Your task to perform on an android device: allow cookies in the chrome app Image 0: 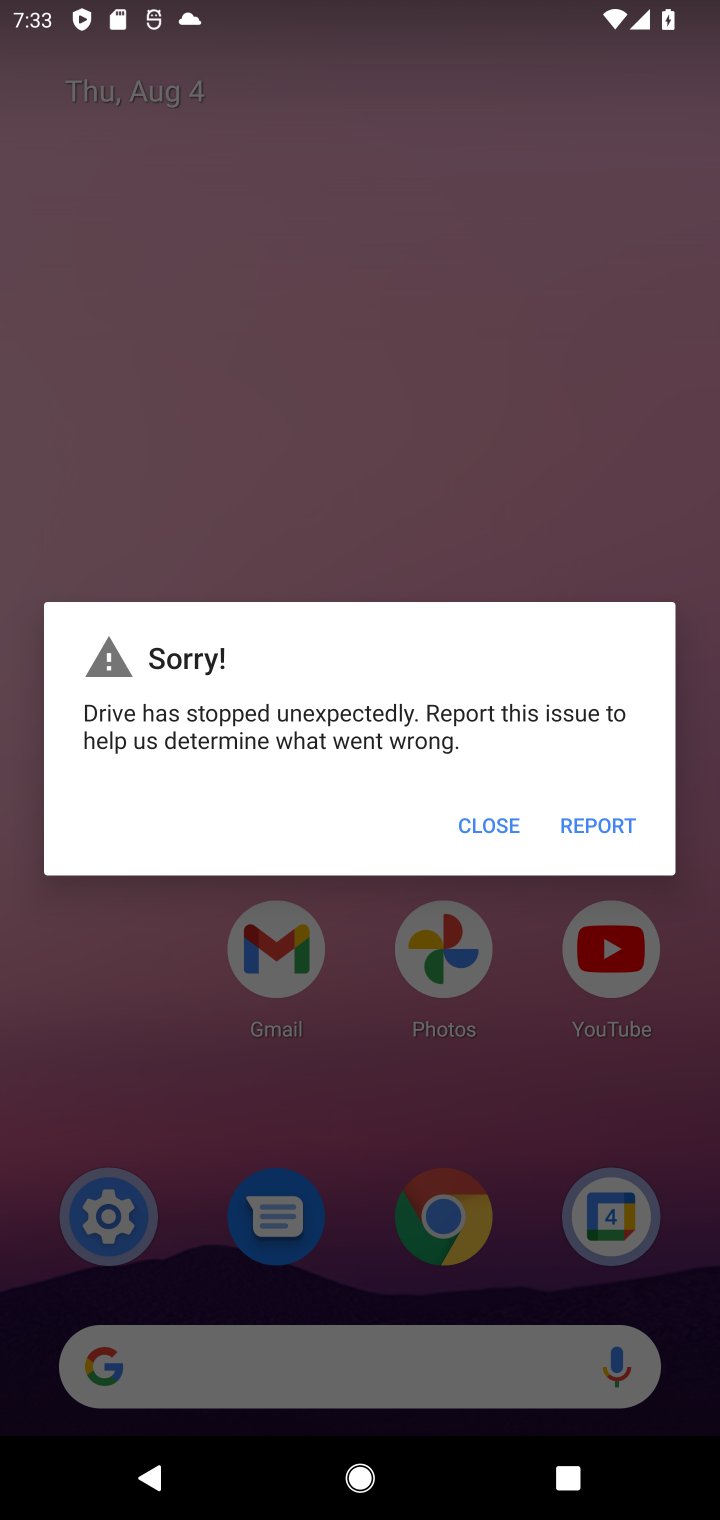
Step 0: click (474, 814)
Your task to perform on an android device: allow cookies in the chrome app Image 1: 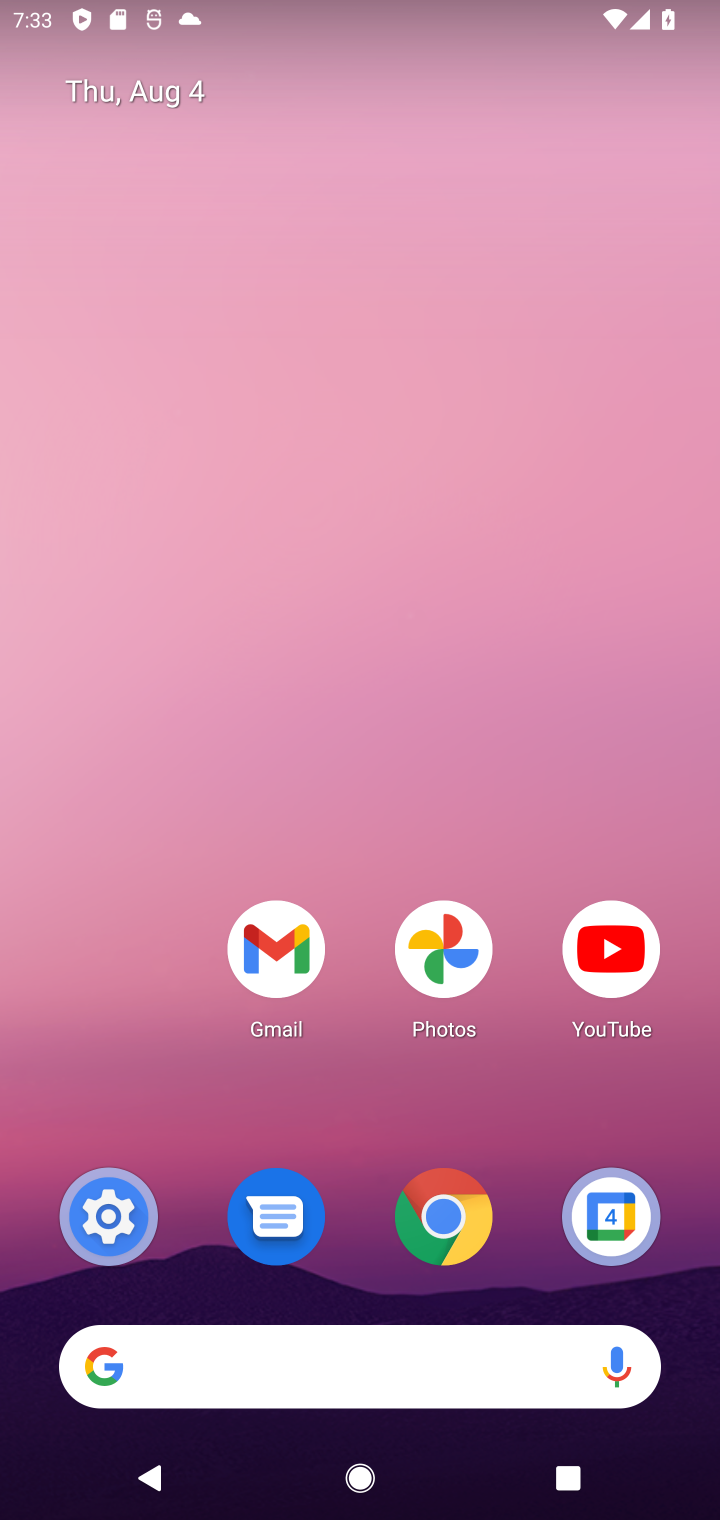
Step 1: click (453, 1217)
Your task to perform on an android device: allow cookies in the chrome app Image 2: 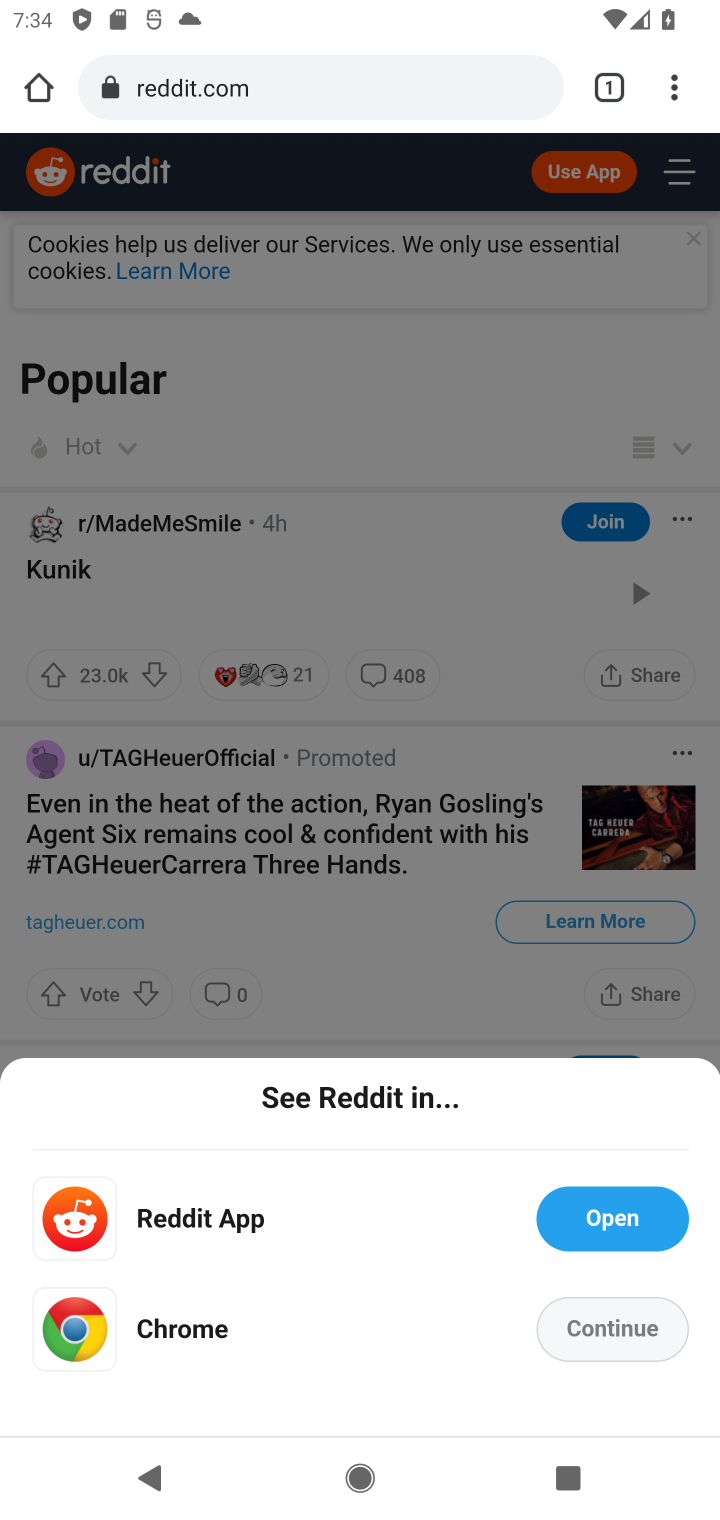
Step 2: click (676, 96)
Your task to perform on an android device: allow cookies in the chrome app Image 3: 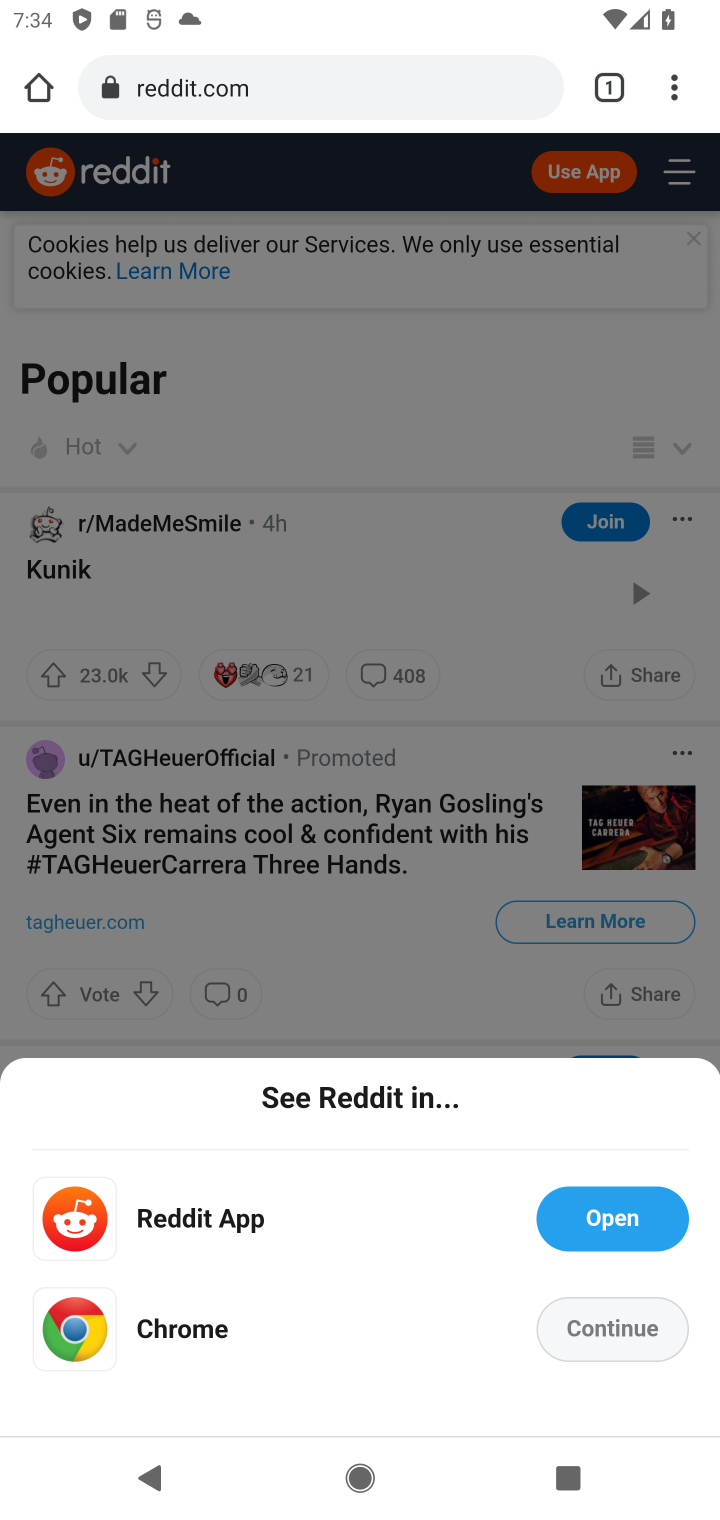
Step 3: click (676, 96)
Your task to perform on an android device: allow cookies in the chrome app Image 4: 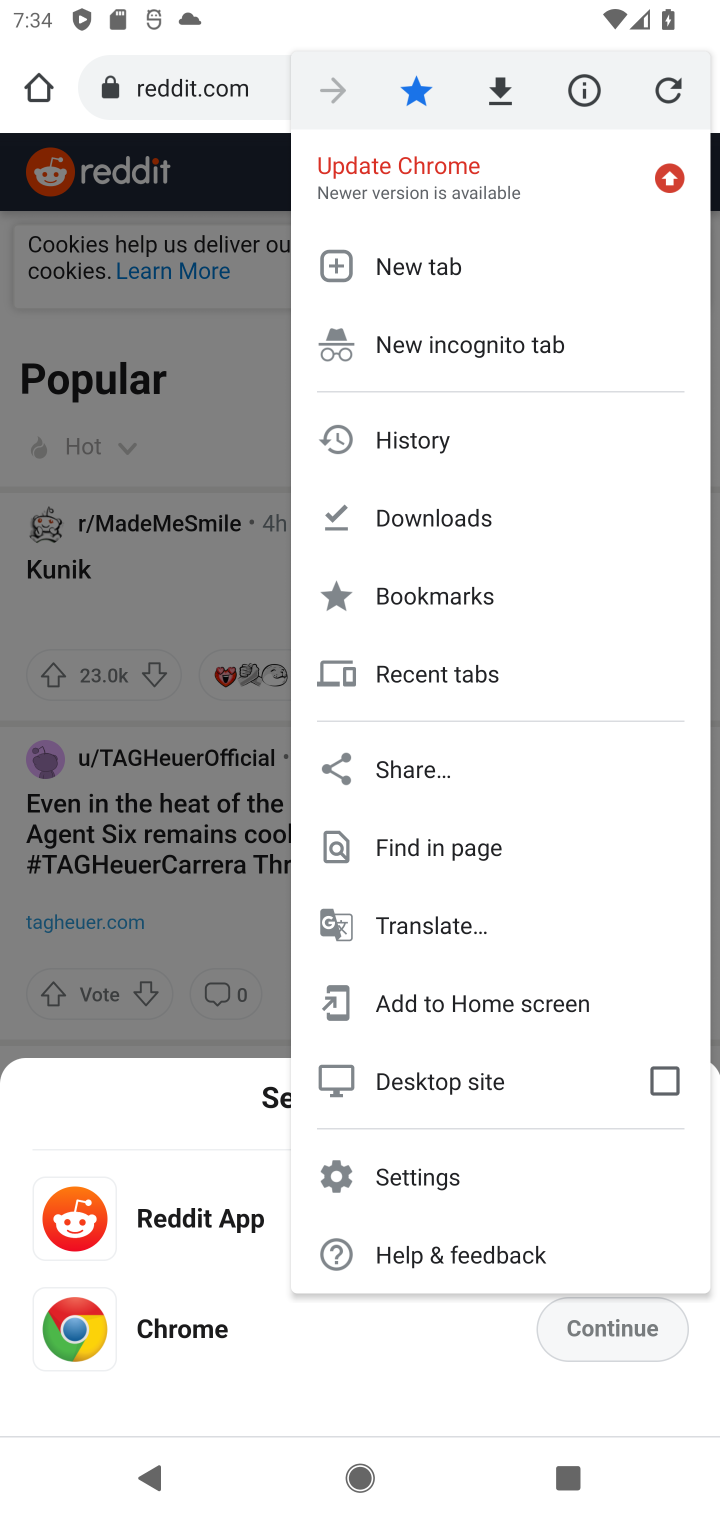
Step 4: click (399, 1166)
Your task to perform on an android device: allow cookies in the chrome app Image 5: 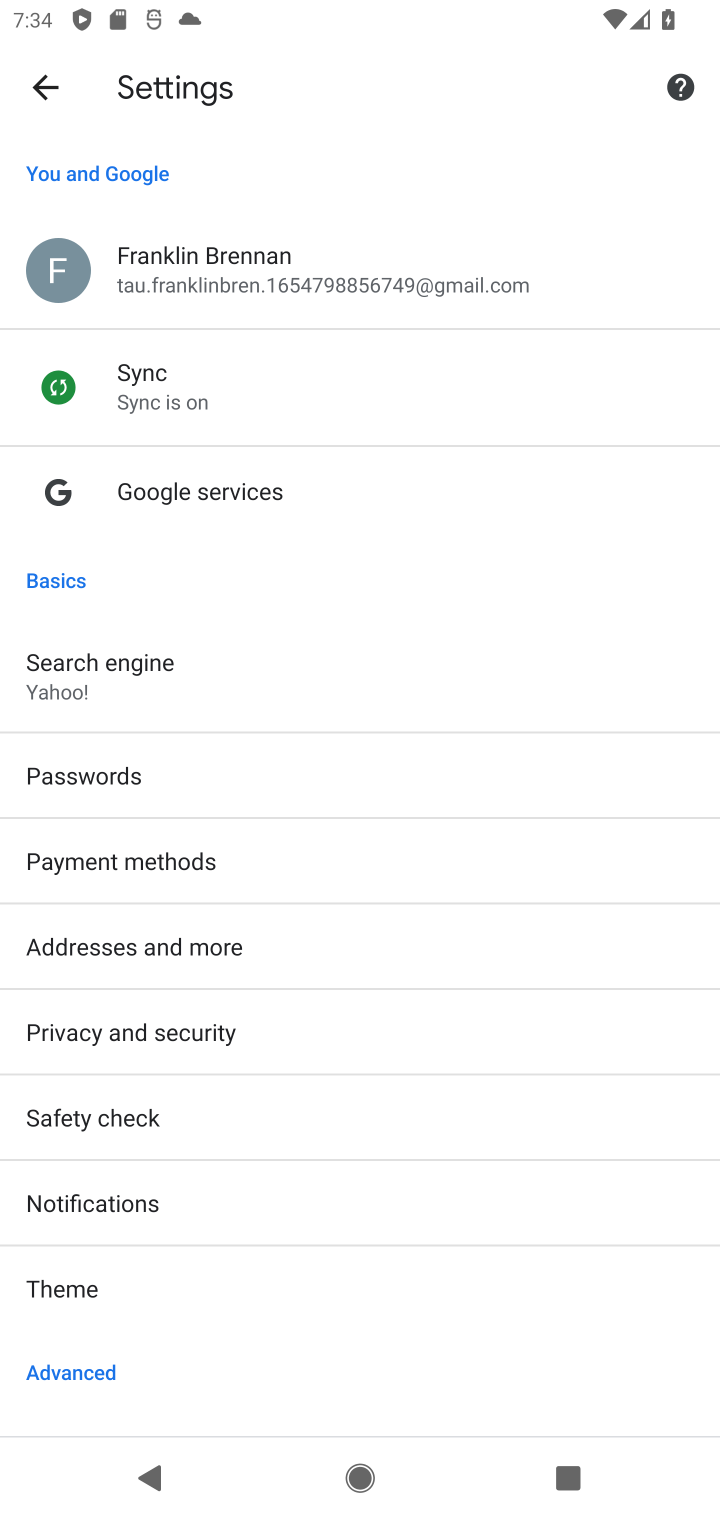
Step 5: drag from (250, 1270) to (232, 578)
Your task to perform on an android device: allow cookies in the chrome app Image 6: 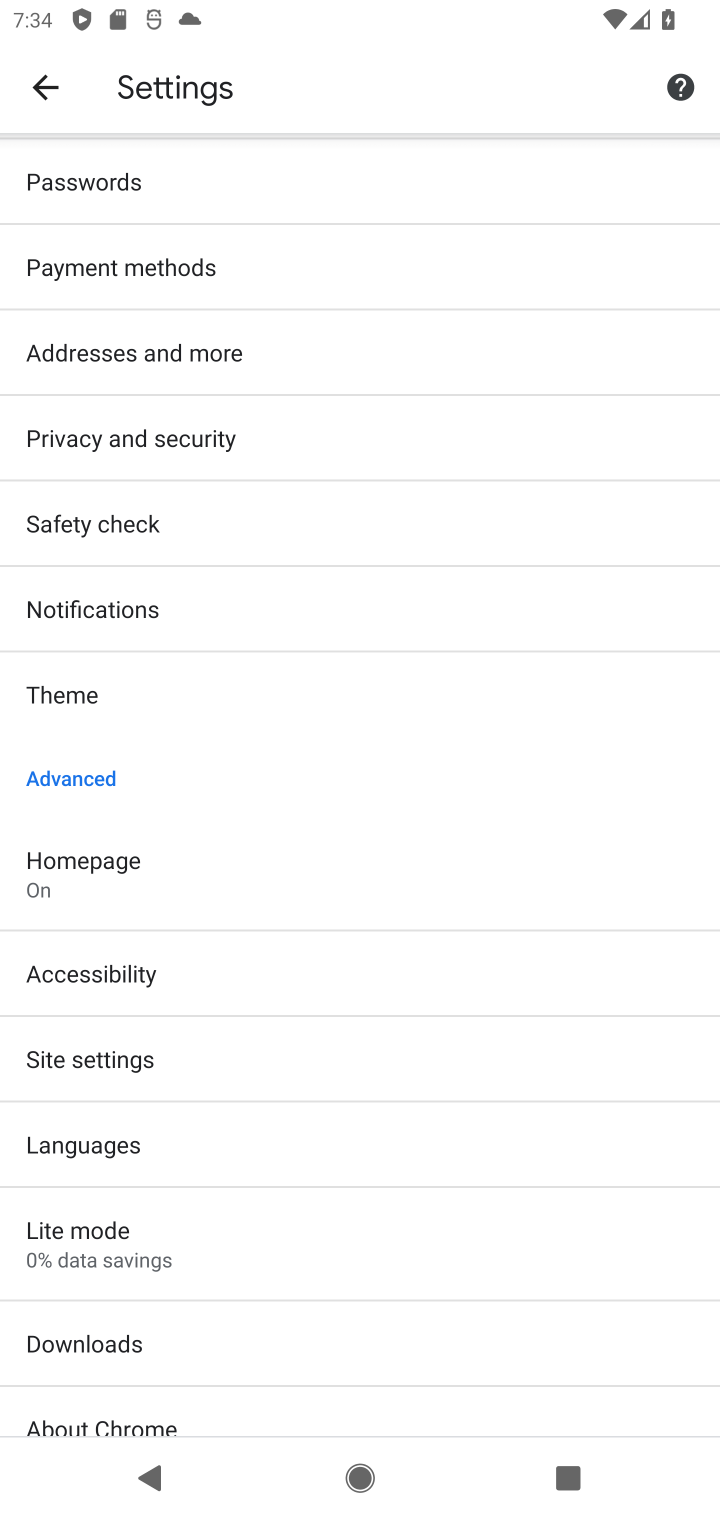
Step 6: drag from (151, 1303) to (144, 997)
Your task to perform on an android device: allow cookies in the chrome app Image 7: 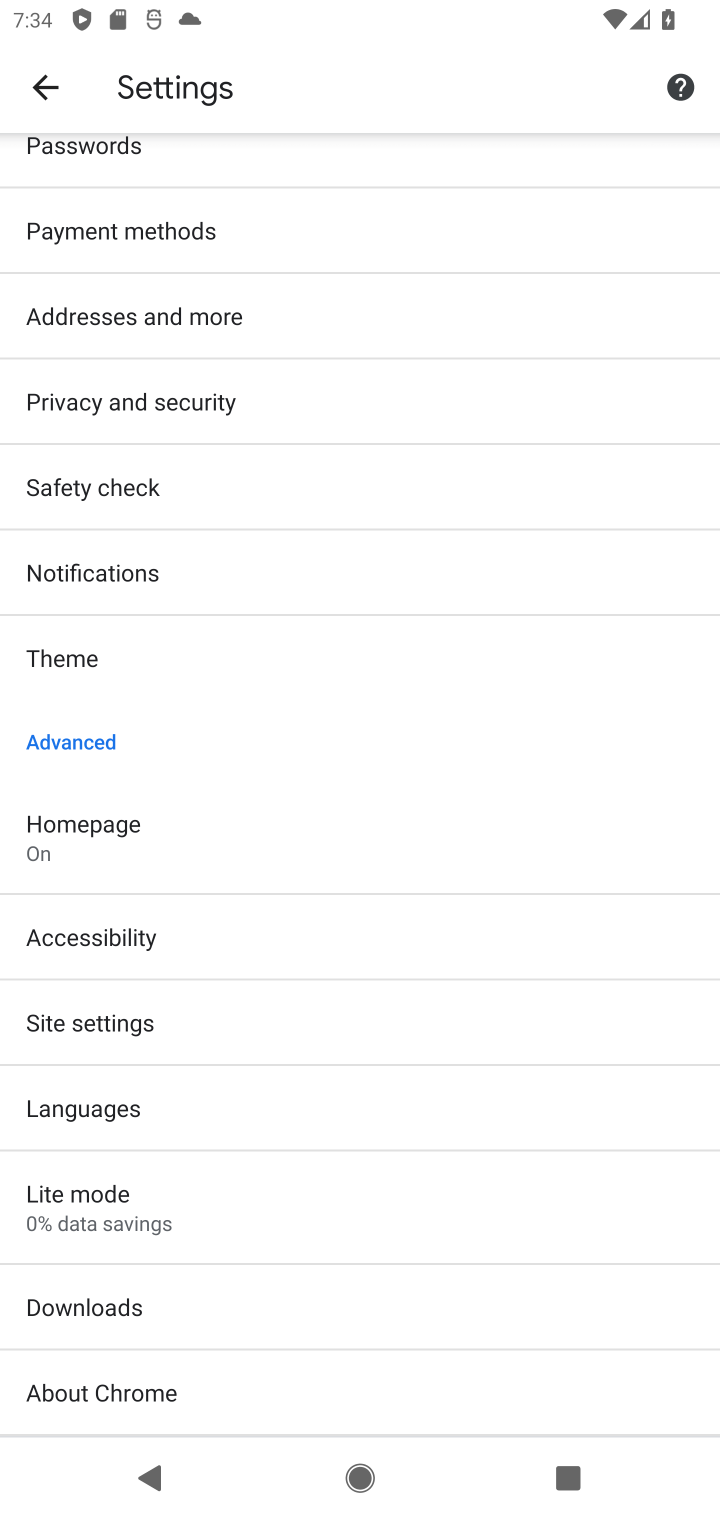
Step 7: click (109, 1014)
Your task to perform on an android device: allow cookies in the chrome app Image 8: 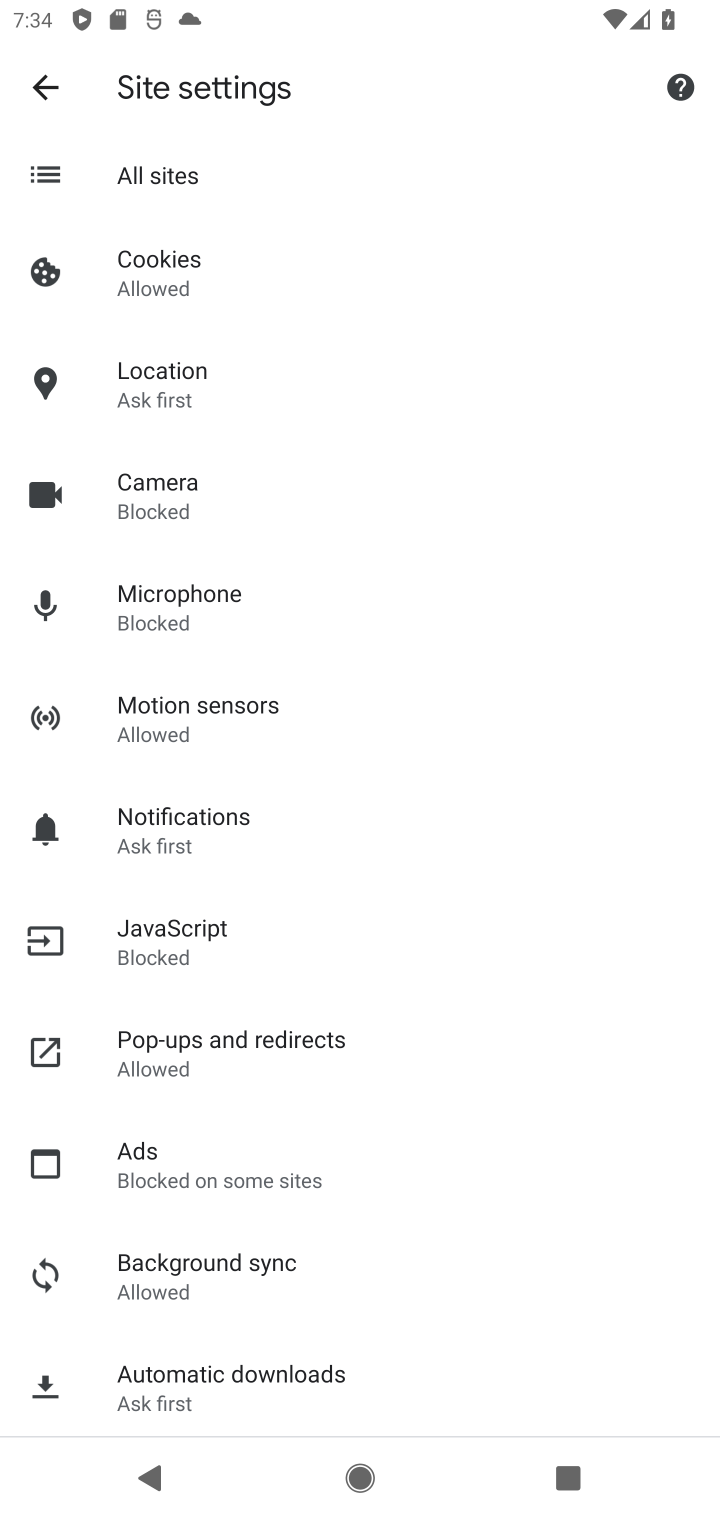
Step 8: click (158, 279)
Your task to perform on an android device: allow cookies in the chrome app Image 9: 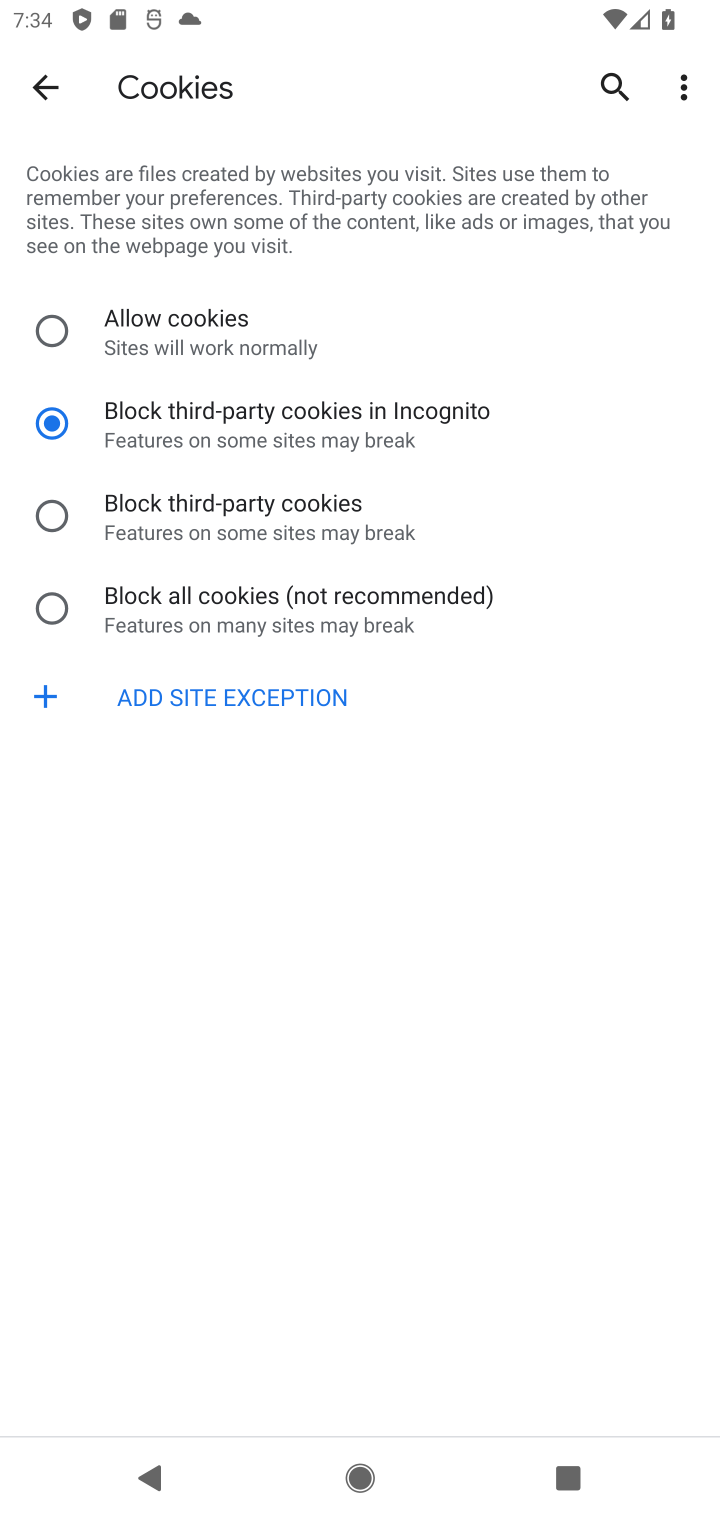
Step 9: click (45, 320)
Your task to perform on an android device: allow cookies in the chrome app Image 10: 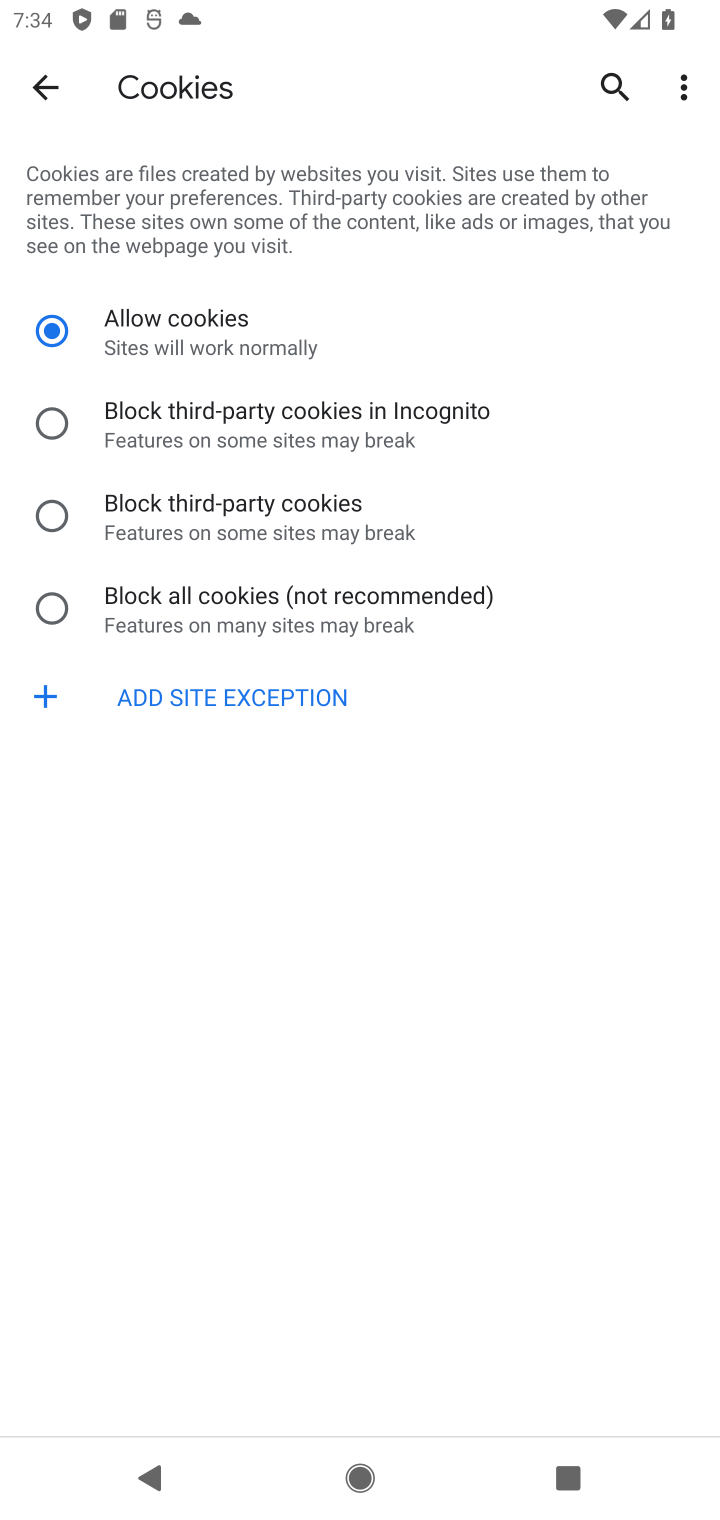
Step 10: task complete